Your task to perform on an android device: set the stopwatch Image 0: 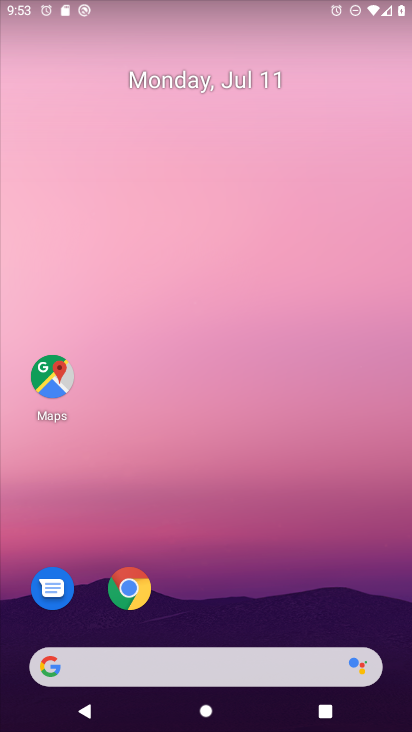
Step 0: press home button
Your task to perform on an android device: set the stopwatch Image 1: 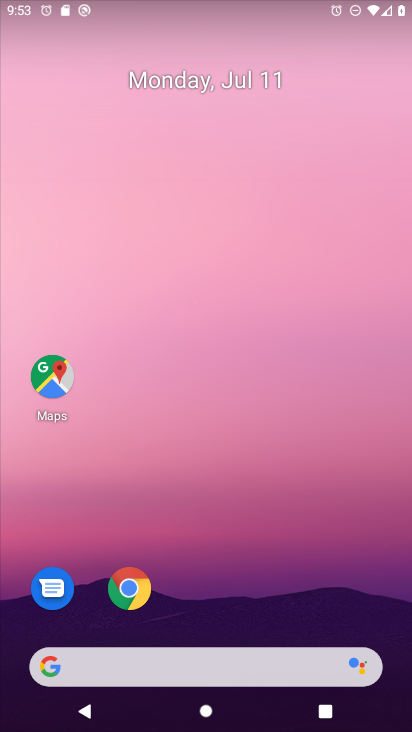
Step 1: drag from (159, 680) to (318, 147)
Your task to perform on an android device: set the stopwatch Image 2: 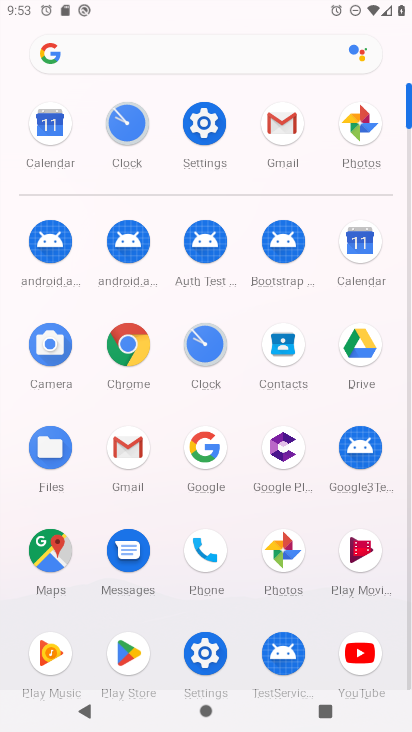
Step 2: click (207, 343)
Your task to perform on an android device: set the stopwatch Image 3: 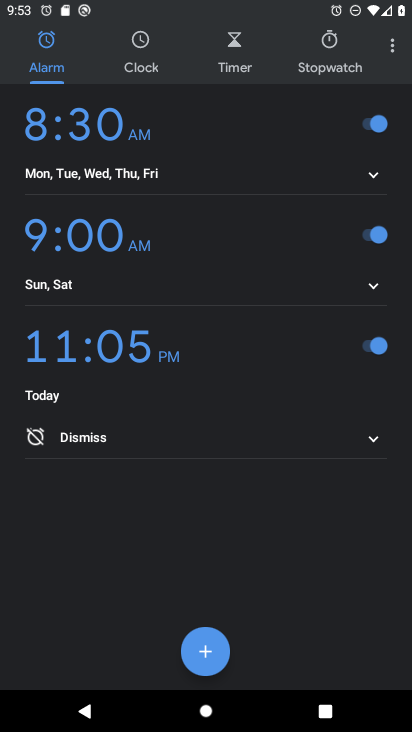
Step 3: click (325, 57)
Your task to perform on an android device: set the stopwatch Image 4: 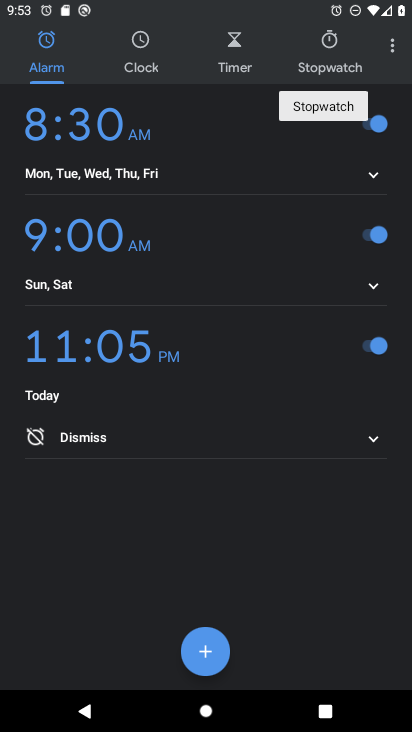
Step 4: click (324, 65)
Your task to perform on an android device: set the stopwatch Image 5: 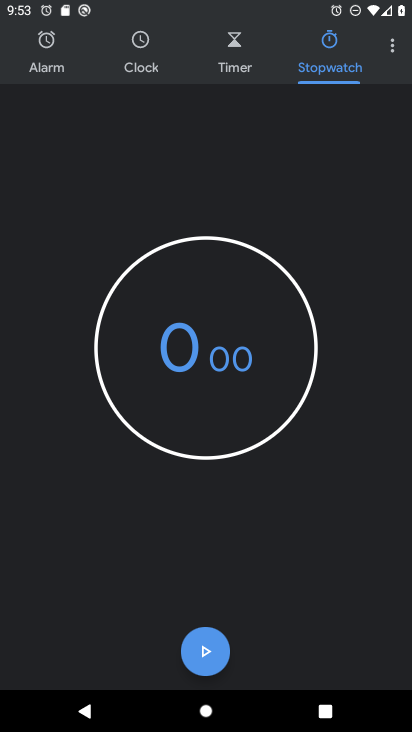
Step 5: click (234, 369)
Your task to perform on an android device: set the stopwatch Image 6: 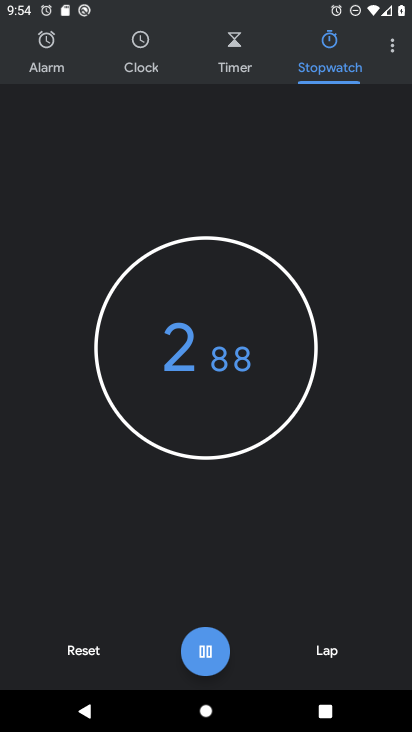
Step 6: click (222, 362)
Your task to perform on an android device: set the stopwatch Image 7: 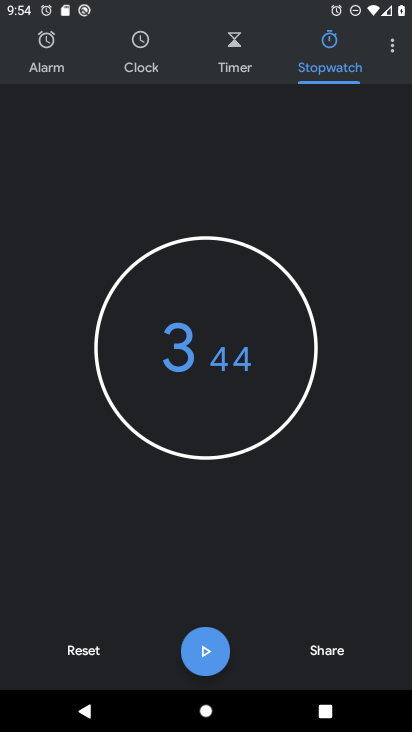
Step 7: task complete